Your task to perform on an android device: turn off improve location accuracy Image 0: 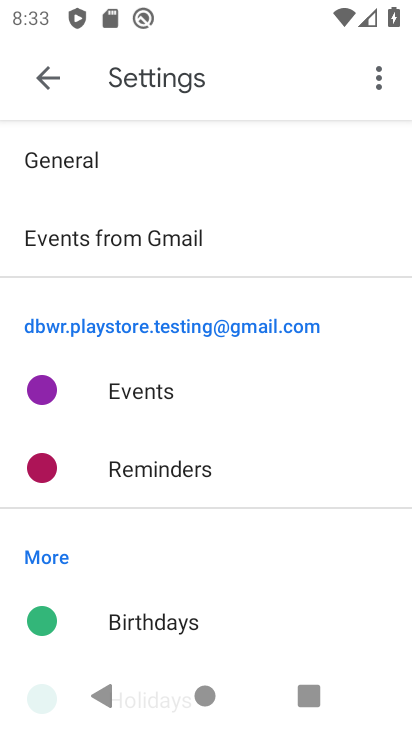
Step 0: press back button
Your task to perform on an android device: turn off improve location accuracy Image 1: 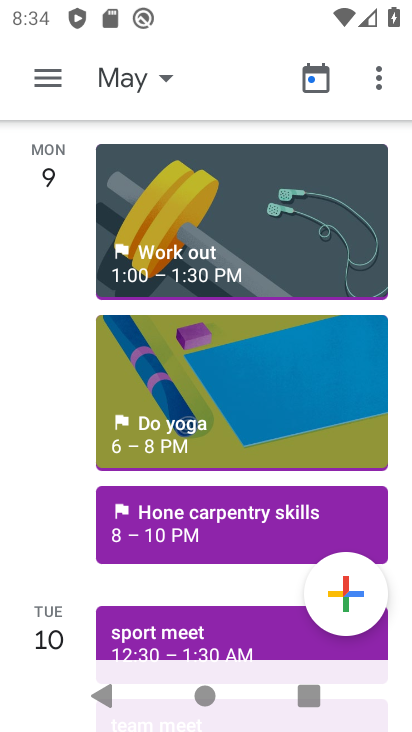
Step 1: press back button
Your task to perform on an android device: turn off improve location accuracy Image 2: 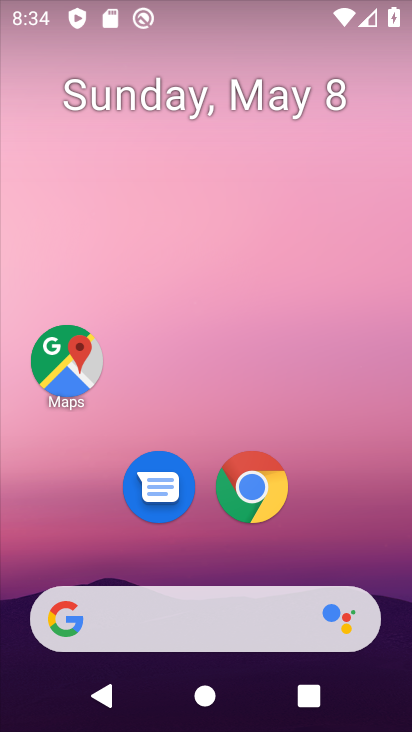
Step 2: drag from (228, 552) to (235, 186)
Your task to perform on an android device: turn off improve location accuracy Image 3: 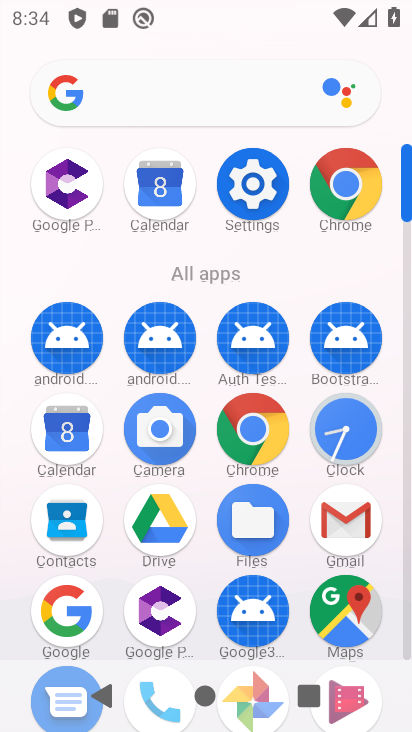
Step 3: click (259, 200)
Your task to perform on an android device: turn off improve location accuracy Image 4: 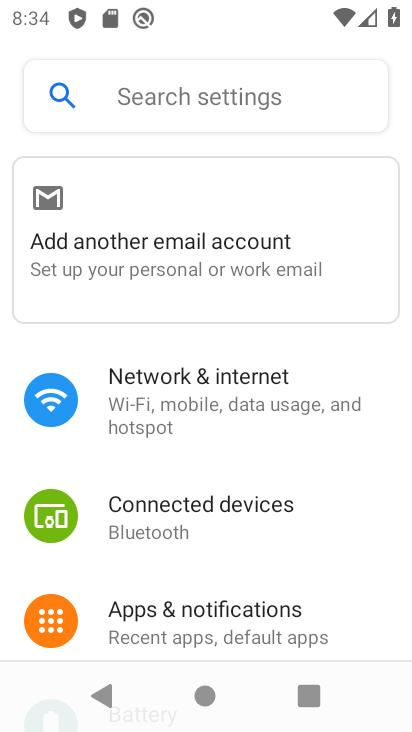
Step 4: drag from (226, 602) to (258, 170)
Your task to perform on an android device: turn off improve location accuracy Image 5: 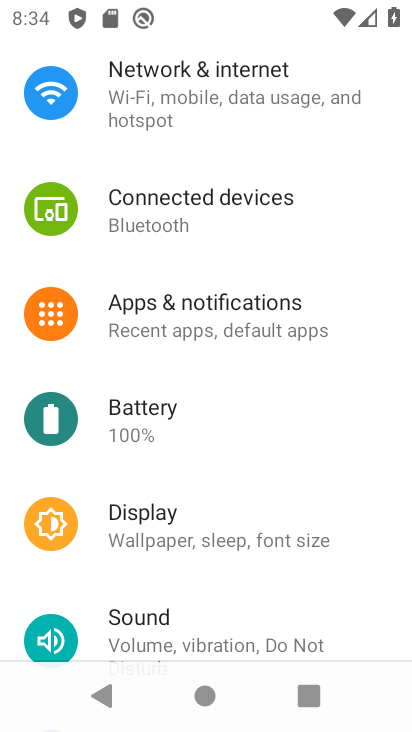
Step 5: drag from (198, 613) to (208, 237)
Your task to perform on an android device: turn off improve location accuracy Image 6: 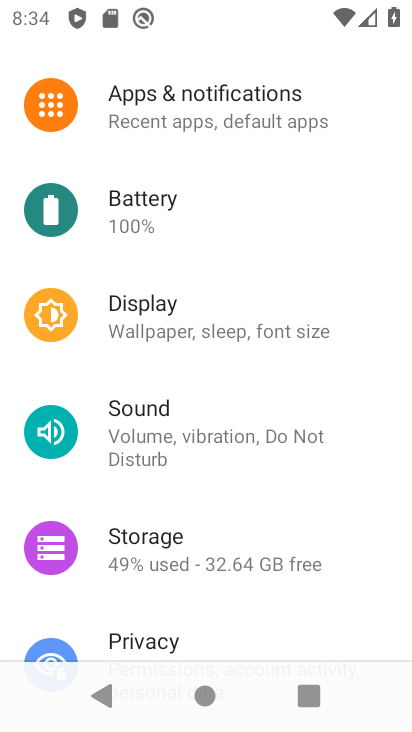
Step 6: drag from (238, 571) to (247, 304)
Your task to perform on an android device: turn off improve location accuracy Image 7: 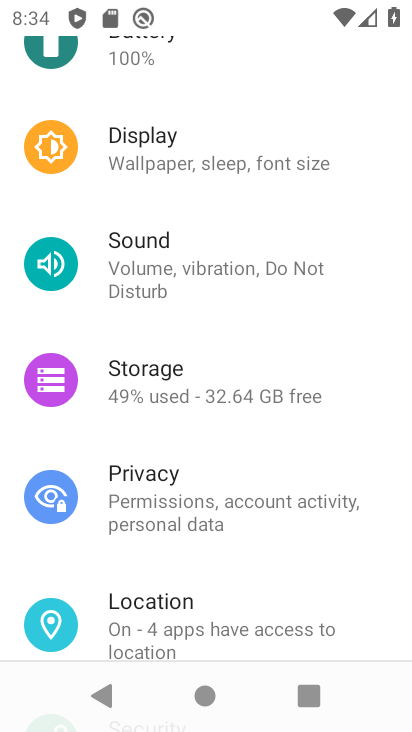
Step 7: drag from (246, 606) to (245, 428)
Your task to perform on an android device: turn off improve location accuracy Image 8: 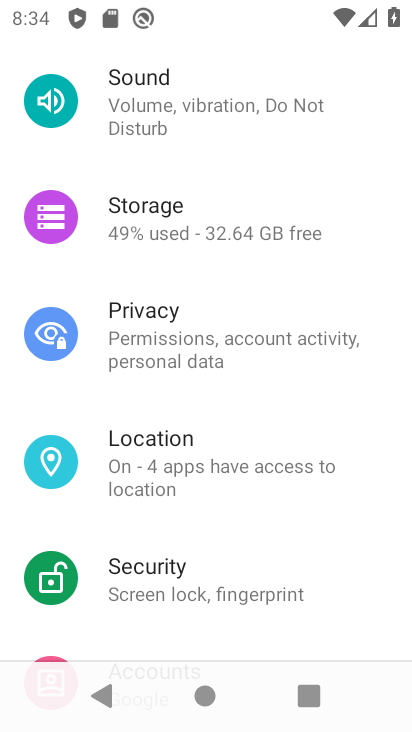
Step 8: click (222, 430)
Your task to perform on an android device: turn off improve location accuracy Image 9: 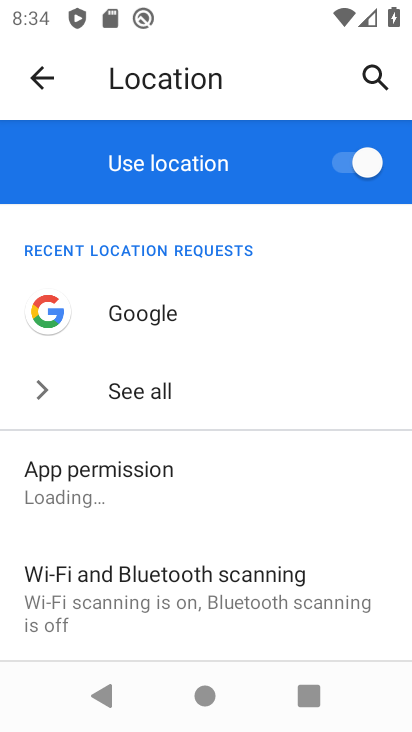
Step 9: drag from (184, 563) to (232, 296)
Your task to perform on an android device: turn off improve location accuracy Image 10: 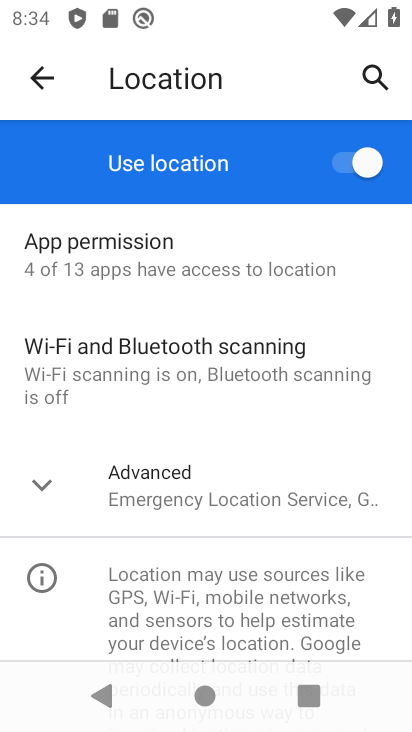
Step 10: click (188, 468)
Your task to perform on an android device: turn off improve location accuracy Image 11: 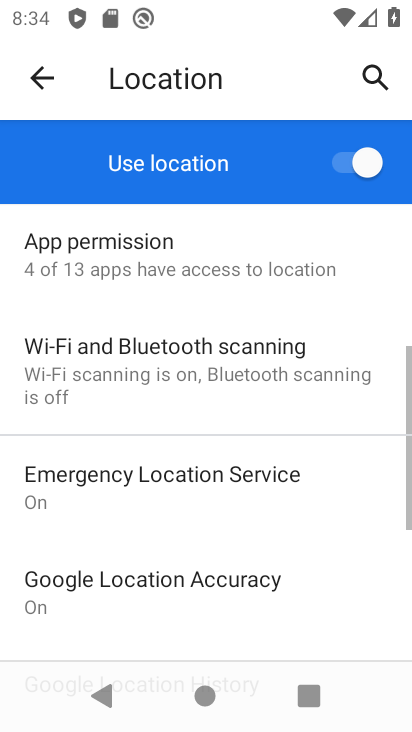
Step 11: drag from (198, 564) to (222, 294)
Your task to perform on an android device: turn off improve location accuracy Image 12: 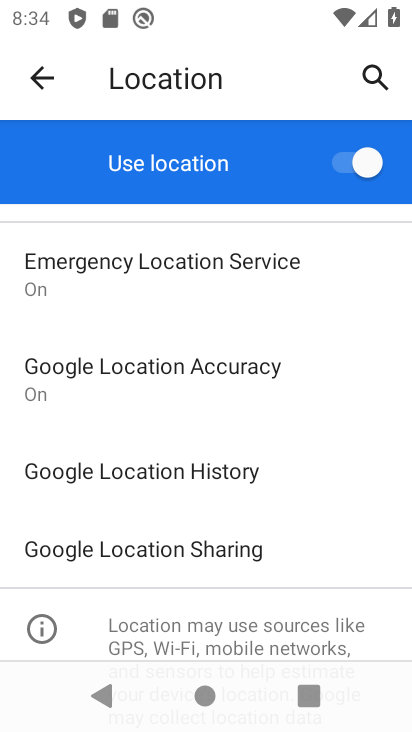
Step 12: click (193, 351)
Your task to perform on an android device: turn off improve location accuracy Image 13: 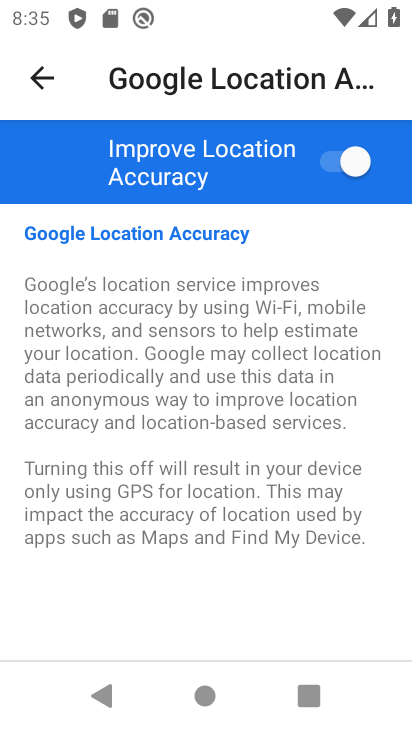
Step 13: click (332, 162)
Your task to perform on an android device: turn off improve location accuracy Image 14: 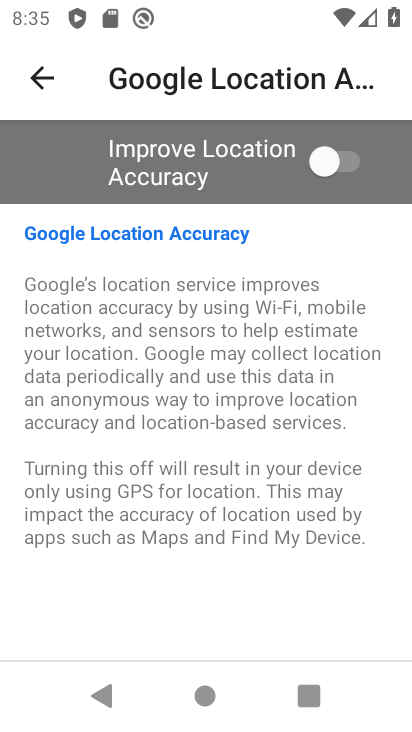
Step 14: task complete